Your task to perform on an android device: turn off location history Image 0: 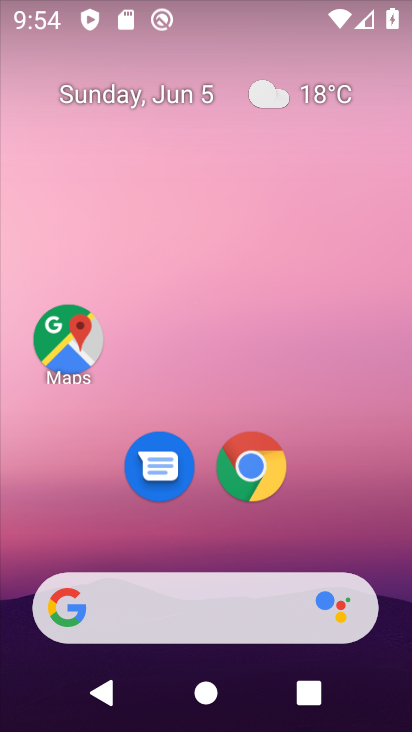
Step 0: drag from (335, 493) to (250, 86)
Your task to perform on an android device: turn off location history Image 1: 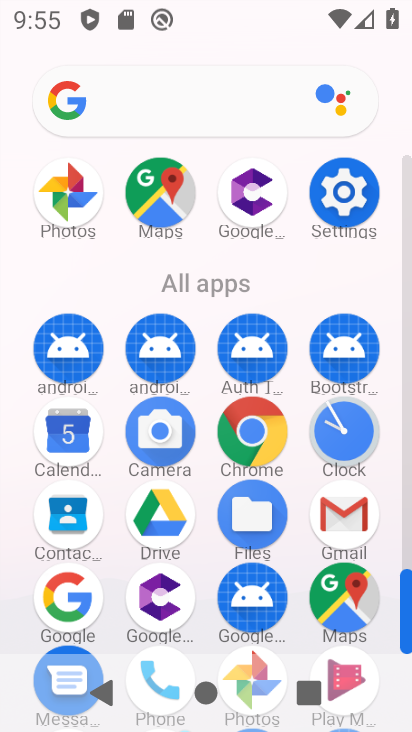
Step 1: click (347, 189)
Your task to perform on an android device: turn off location history Image 2: 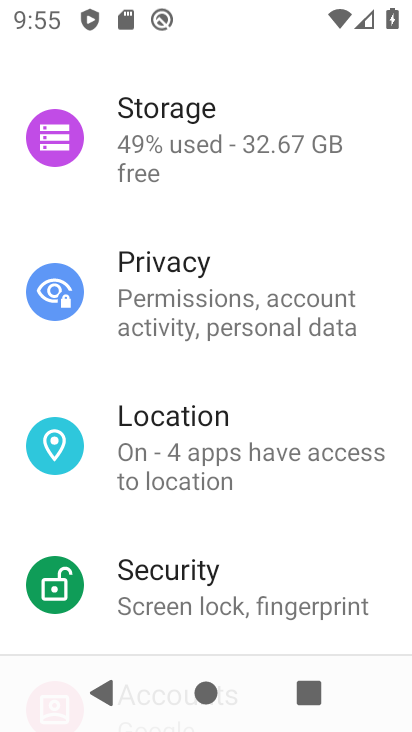
Step 2: click (197, 424)
Your task to perform on an android device: turn off location history Image 3: 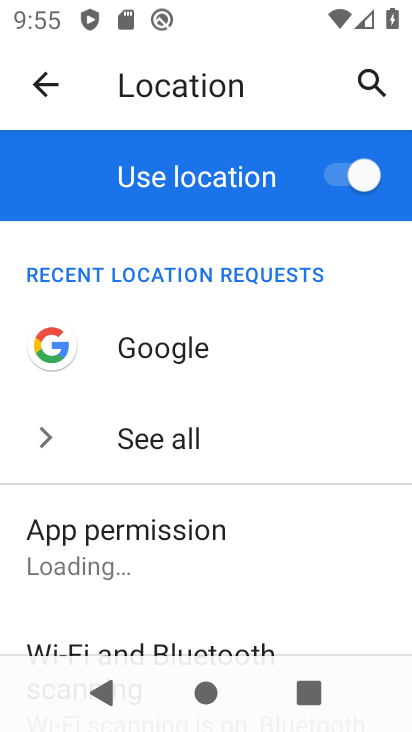
Step 3: drag from (256, 447) to (311, 286)
Your task to perform on an android device: turn off location history Image 4: 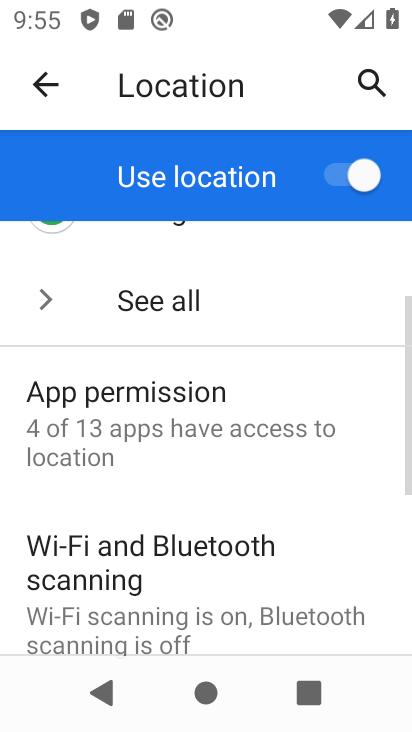
Step 4: drag from (231, 566) to (315, 395)
Your task to perform on an android device: turn off location history Image 5: 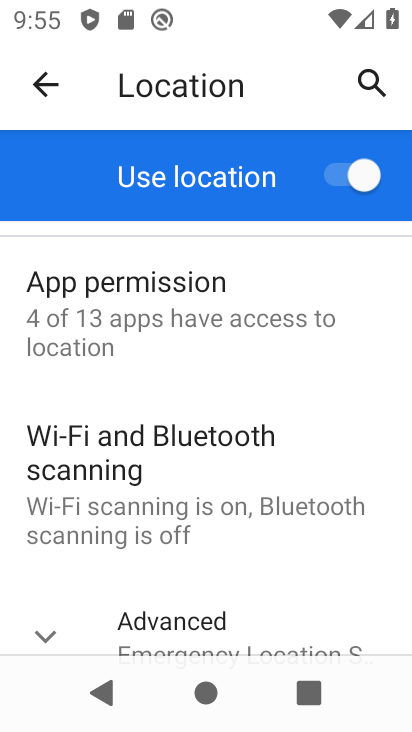
Step 5: drag from (225, 575) to (300, 428)
Your task to perform on an android device: turn off location history Image 6: 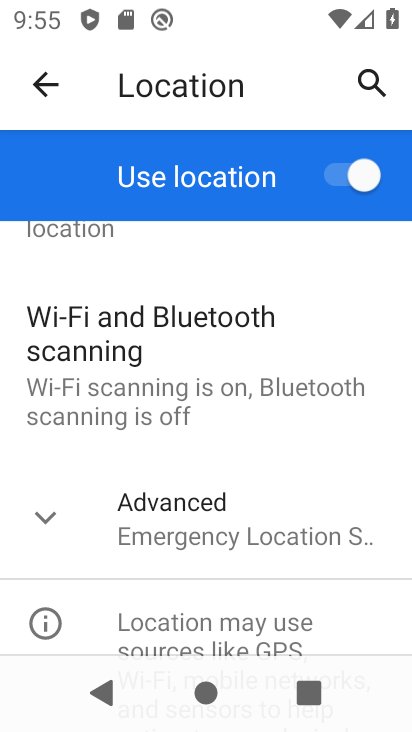
Step 6: click (232, 533)
Your task to perform on an android device: turn off location history Image 7: 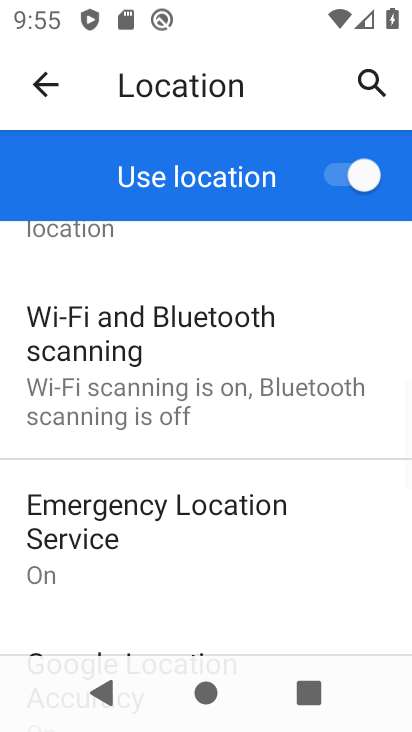
Step 7: drag from (211, 558) to (295, 408)
Your task to perform on an android device: turn off location history Image 8: 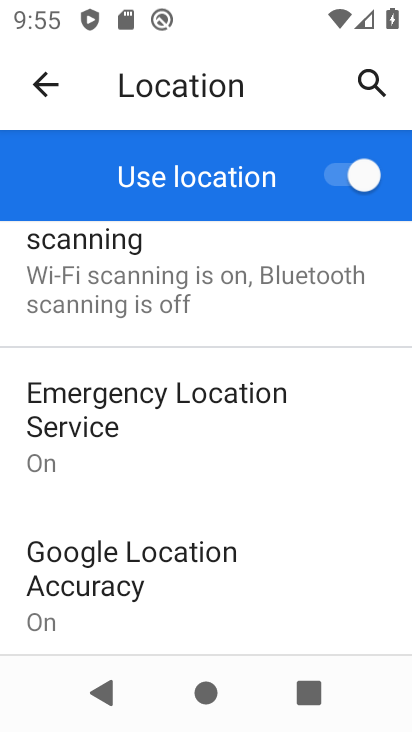
Step 8: drag from (219, 586) to (286, 426)
Your task to perform on an android device: turn off location history Image 9: 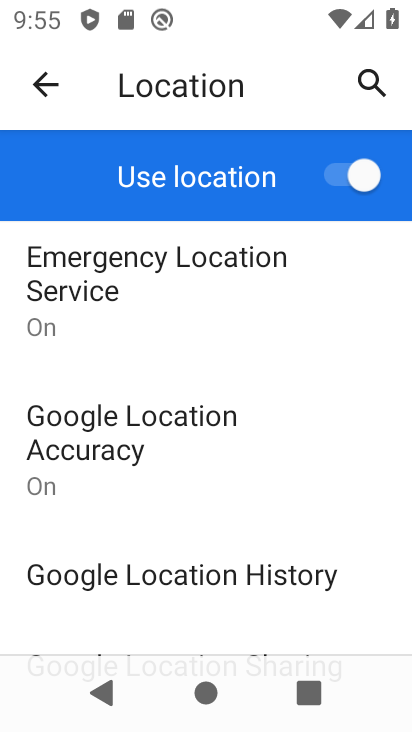
Step 9: drag from (237, 521) to (331, 371)
Your task to perform on an android device: turn off location history Image 10: 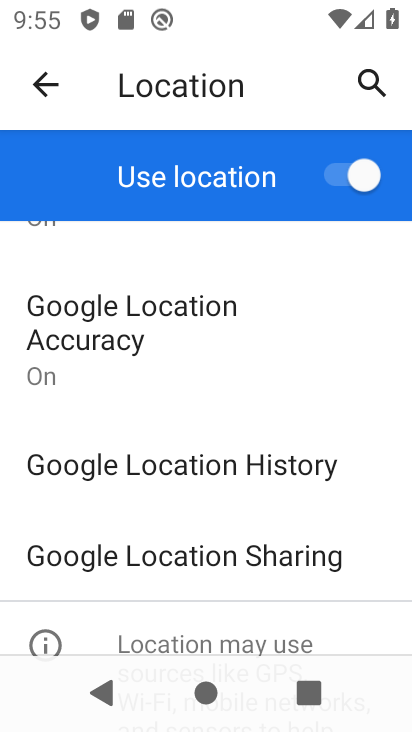
Step 10: click (312, 475)
Your task to perform on an android device: turn off location history Image 11: 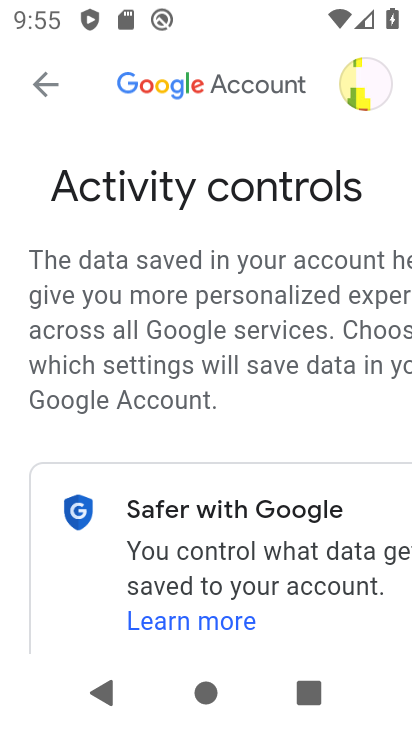
Step 11: drag from (232, 588) to (269, 416)
Your task to perform on an android device: turn off location history Image 12: 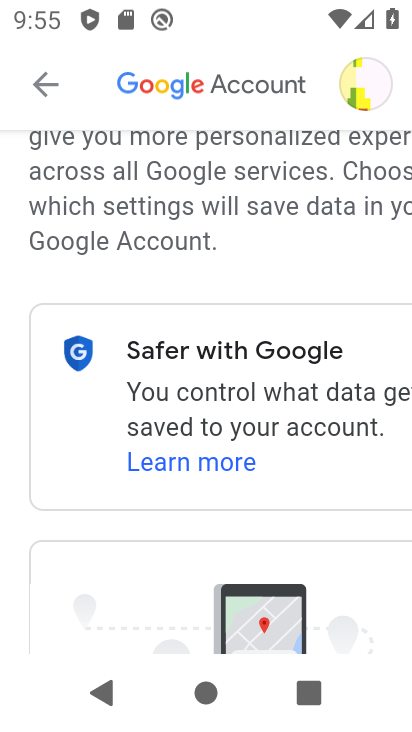
Step 12: drag from (171, 583) to (236, 425)
Your task to perform on an android device: turn off location history Image 13: 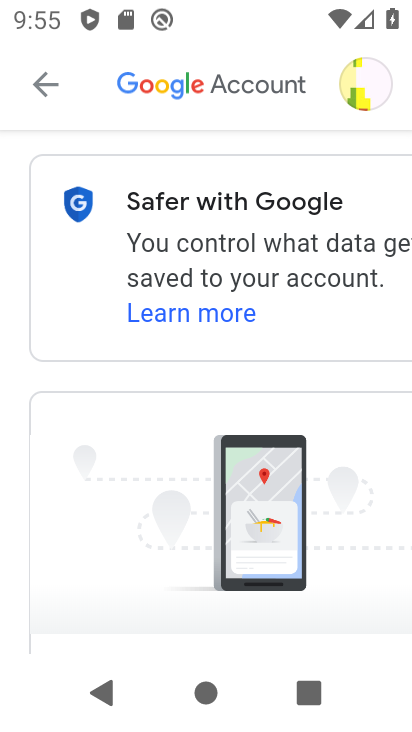
Step 13: drag from (177, 540) to (277, 372)
Your task to perform on an android device: turn off location history Image 14: 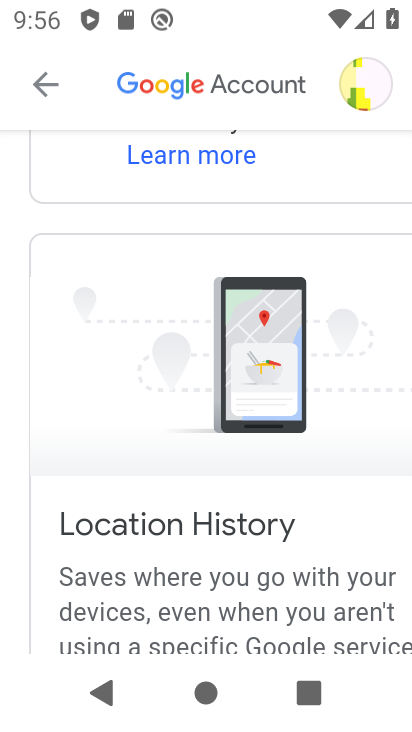
Step 14: drag from (175, 570) to (277, 428)
Your task to perform on an android device: turn off location history Image 15: 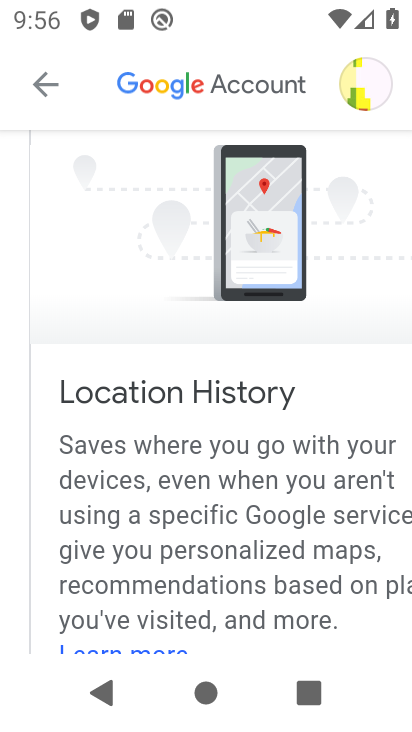
Step 15: drag from (194, 567) to (321, 427)
Your task to perform on an android device: turn off location history Image 16: 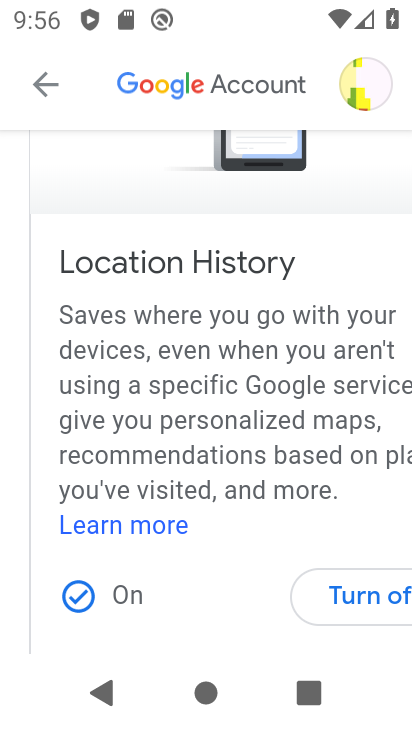
Step 16: drag from (214, 567) to (277, 455)
Your task to perform on an android device: turn off location history Image 17: 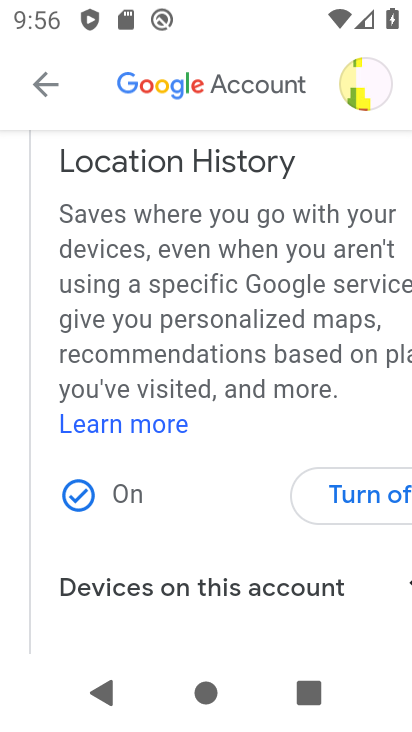
Step 17: click (372, 500)
Your task to perform on an android device: turn off location history Image 18: 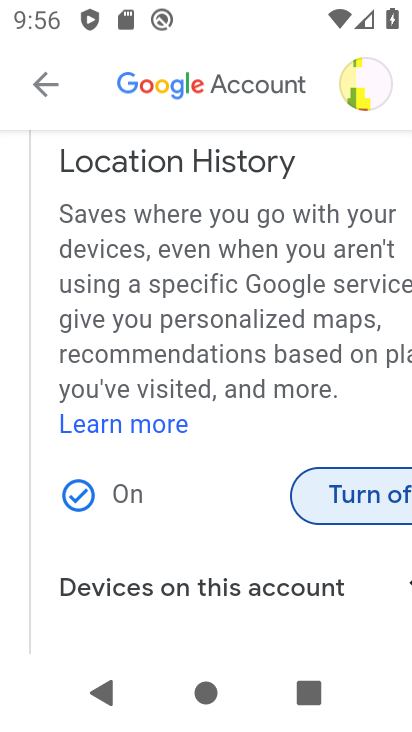
Step 18: click (372, 500)
Your task to perform on an android device: turn off location history Image 19: 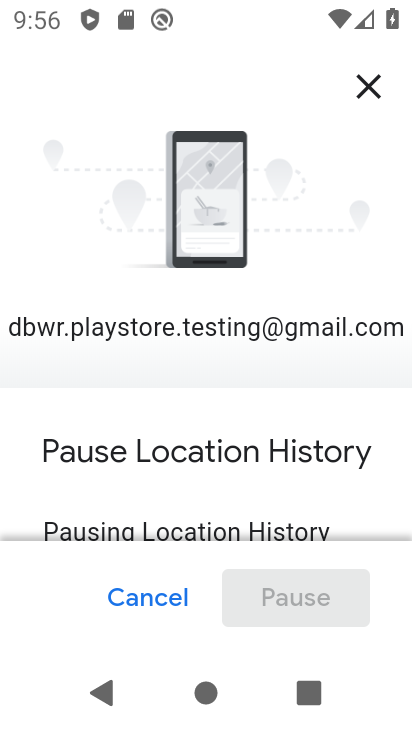
Step 19: drag from (269, 415) to (309, 299)
Your task to perform on an android device: turn off location history Image 20: 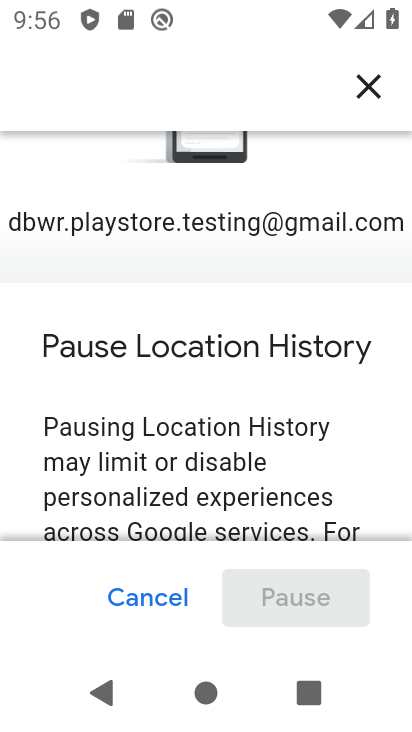
Step 20: drag from (274, 395) to (305, 268)
Your task to perform on an android device: turn off location history Image 21: 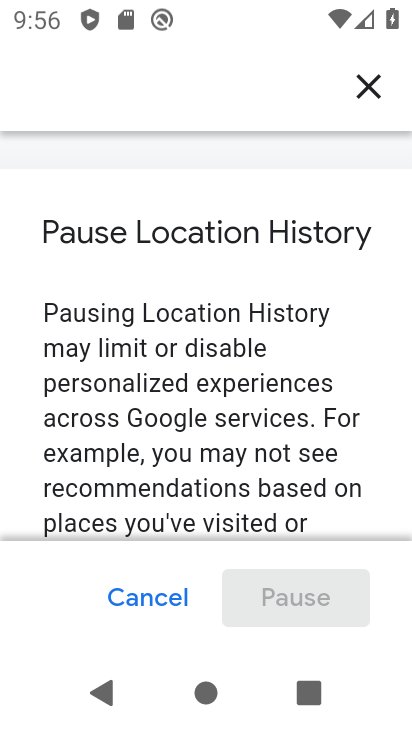
Step 21: drag from (256, 442) to (345, 316)
Your task to perform on an android device: turn off location history Image 22: 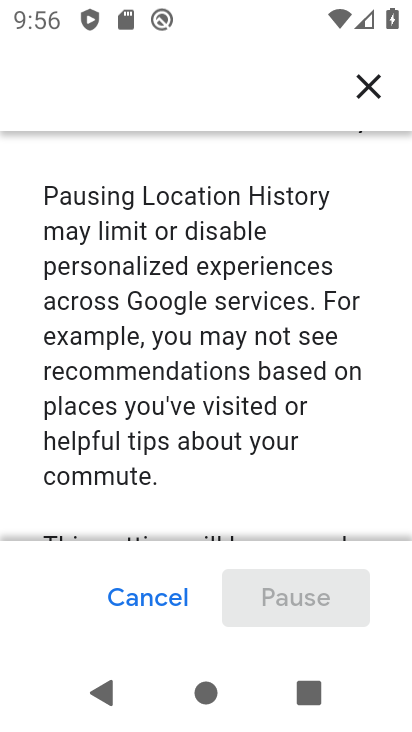
Step 22: drag from (284, 468) to (321, 370)
Your task to perform on an android device: turn off location history Image 23: 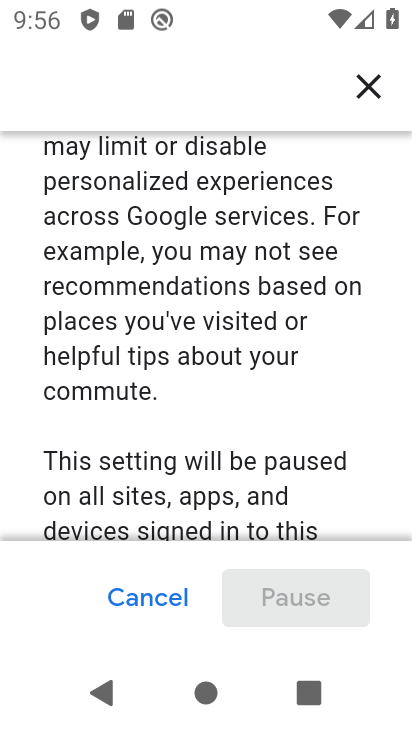
Step 23: drag from (246, 497) to (315, 377)
Your task to perform on an android device: turn off location history Image 24: 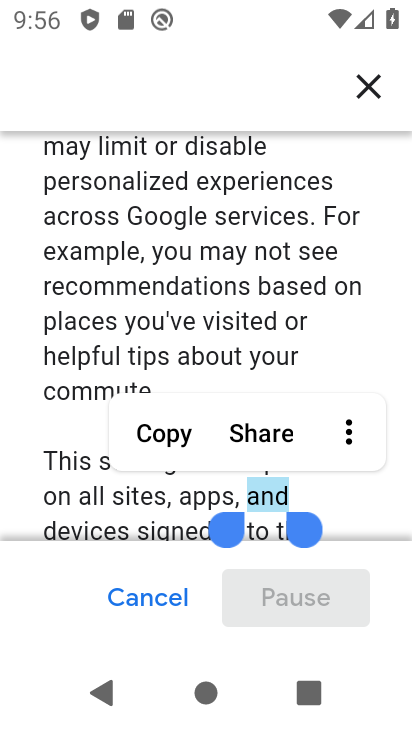
Step 24: drag from (160, 523) to (244, 281)
Your task to perform on an android device: turn off location history Image 25: 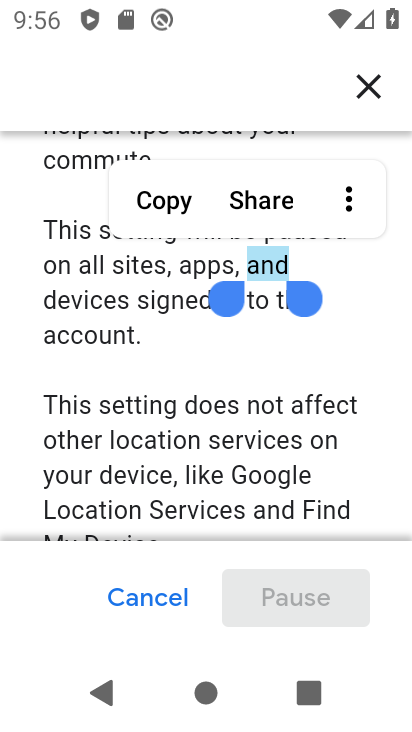
Step 25: drag from (257, 461) to (330, 326)
Your task to perform on an android device: turn off location history Image 26: 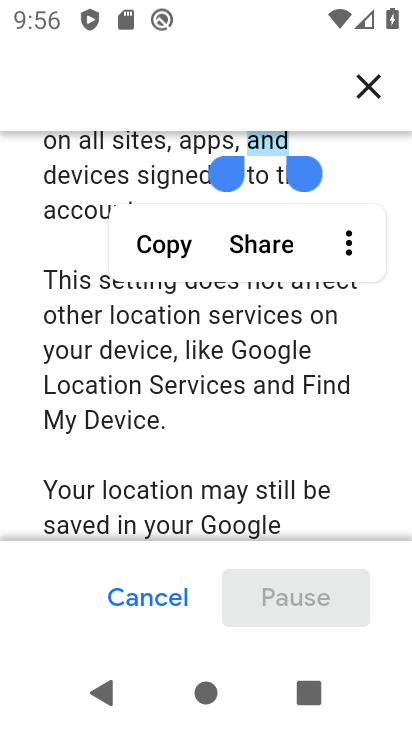
Step 26: drag from (254, 448) to (346, 328)
Your task to perform on an android device: turn off location history Image 27: 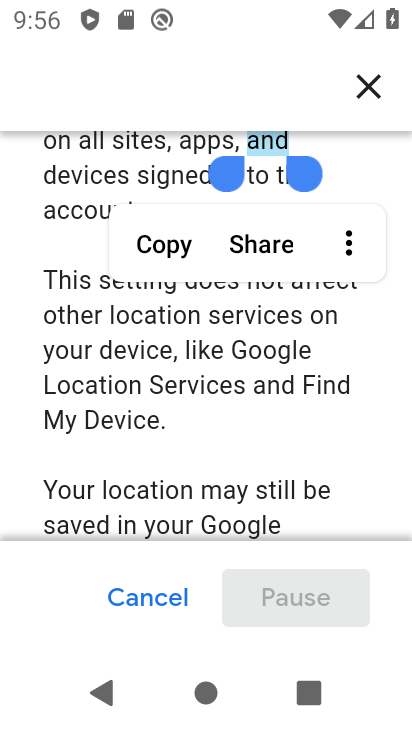
Step 27: drag from (253, 461) to (241, 199)
Your task to perform on an android device: turn off location history Image 28: 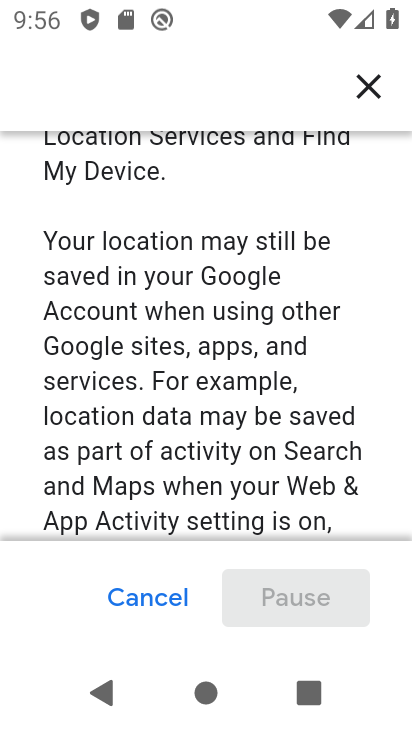
Step 28: drag from (240, 471) to (282, 313)
Your task to perform on an android device: turn off location history Image 29: 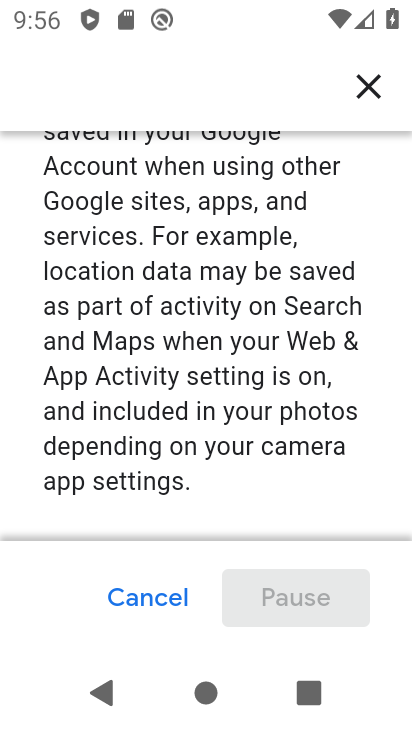
Step 29: drag from (252, 484) to (340, 365)
Your task to perform on an android device: turn off location history Image 30: 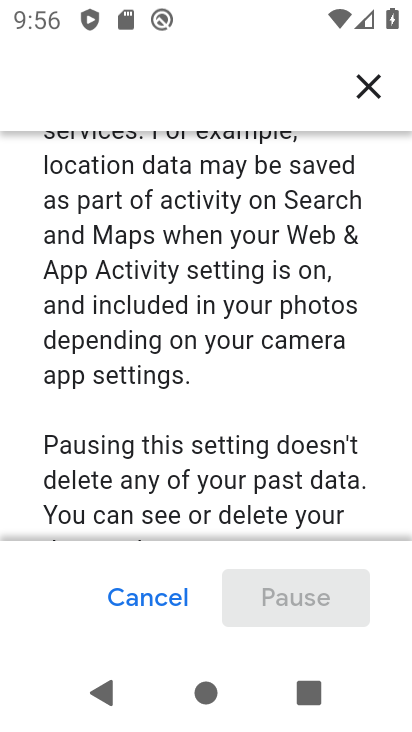
Step 30: drag from (254, 489) to (310, 362)
Your task to perform on an android device: turn off location history Image 31: 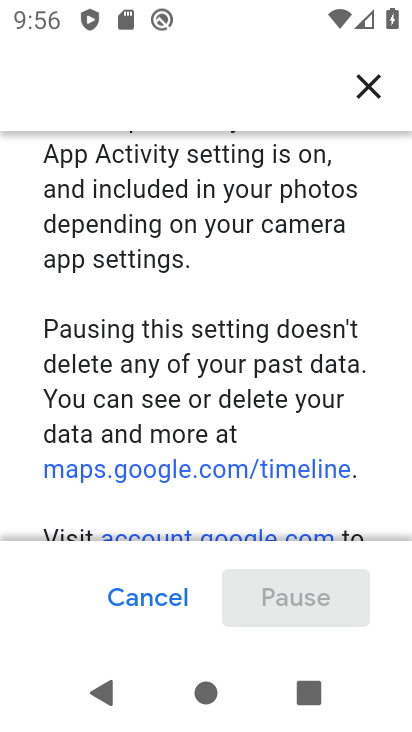
Step 31: drag from (207, 500) to (319, 332)
Your task to perform on an android device: turn off location history Image 32: 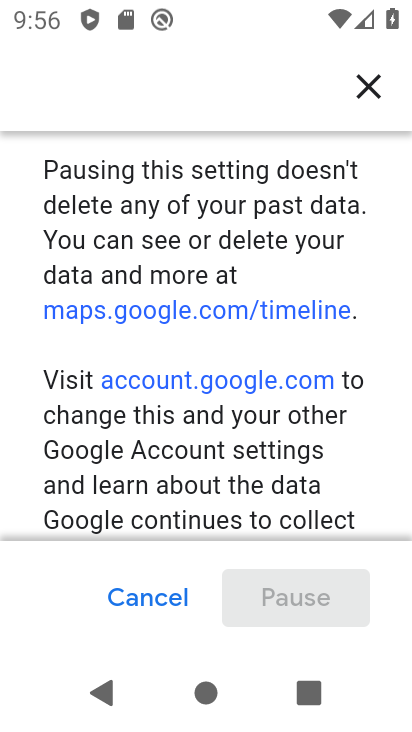
Step 32: drag from (254, 476) to (357, 319)
Your task to perform on an android device: turn off location history Image 33: 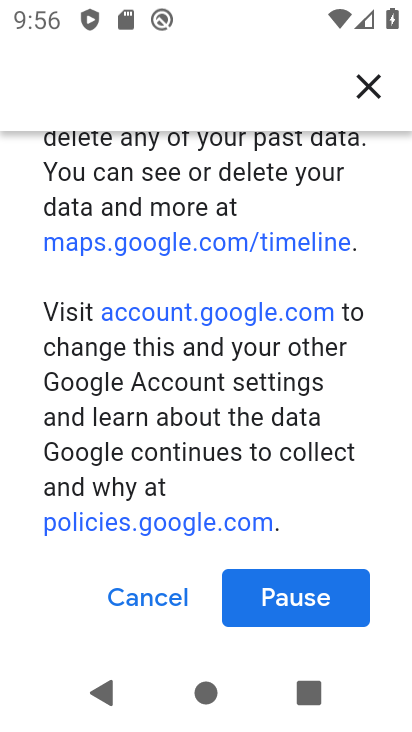
Step 33: click (303, 606)
Your task to perform on an android device: turn off location history Image 34: 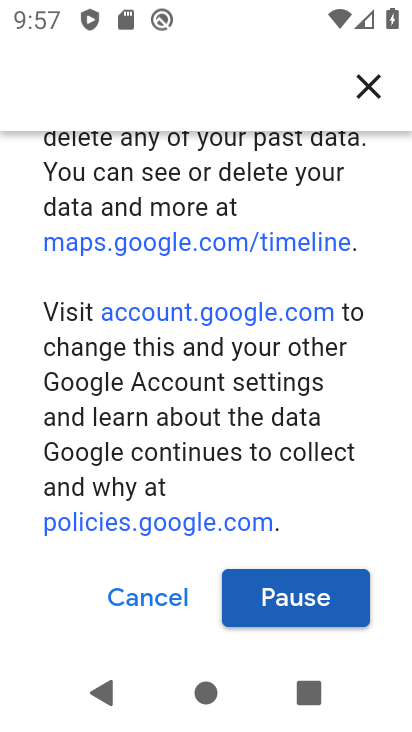
Step 34: click (303, 606)
Your task to perform on an android device: turn off location history Image 35: 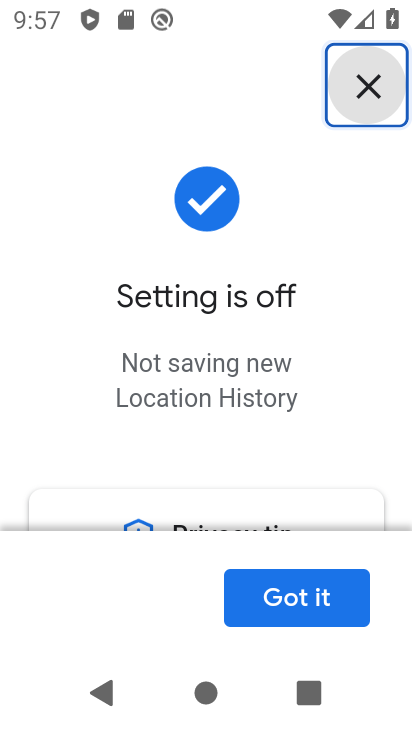
Step 35: click (303, 606)
Your task to perform on an android device: turn off location history Image 36: 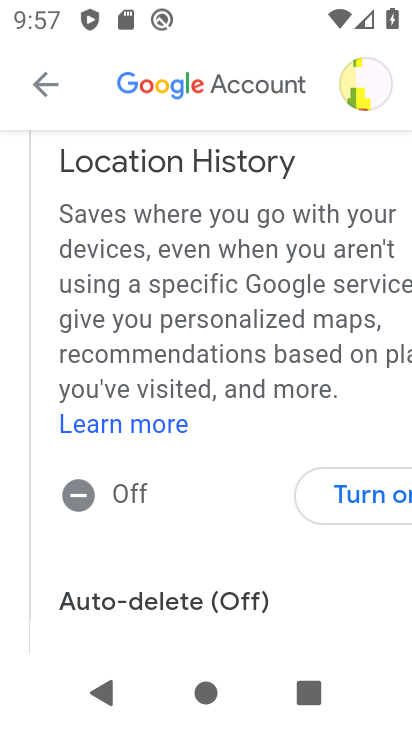
Step 36: task complete